Your task to perform on an android device: turn on notifications settings in the gmail app Image 0: 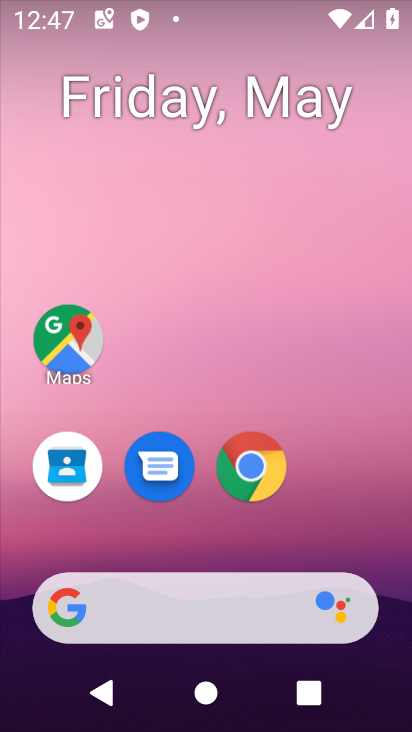
Step 0: click (188, 31)
Your task to perform on an android device: turn on notifications settings in the gmail app Image 1: 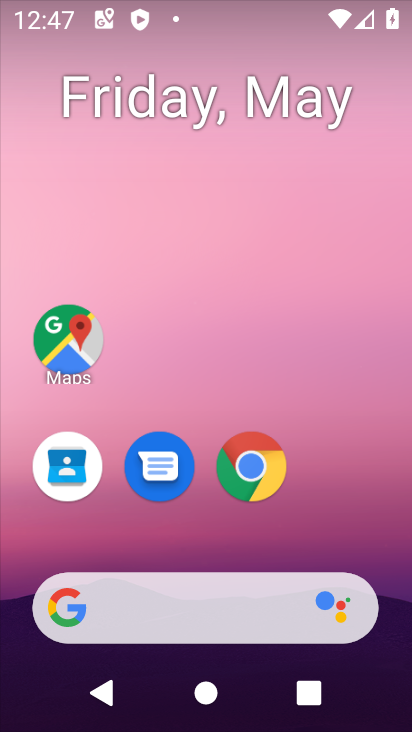
Step 1: drag from (217, 532) to (214, 11)
Your task to perform on an android device: turn on notifications settings in the gmail app Image 2: 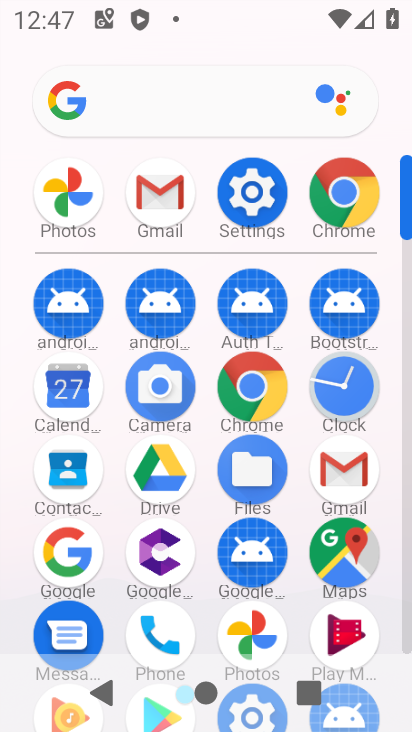
Step 2: click (172, 200)
Your task to perform on an android device: turn on notifications settings in the gmail app Image 3: 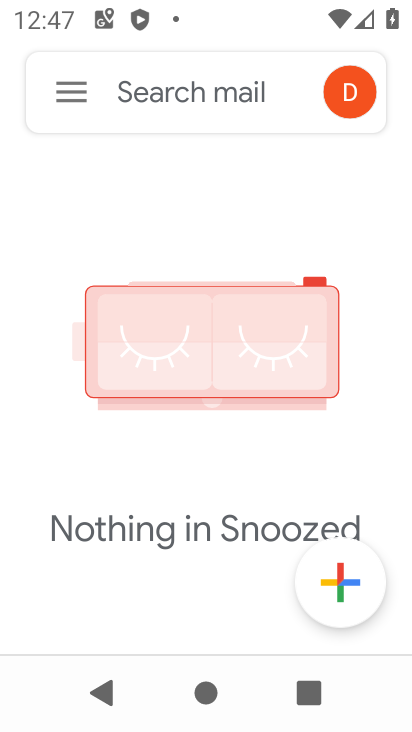
Step 3: click (69, 98)
Your task to perform on an android device: turn on notifications settings in the gmail app Image 4: 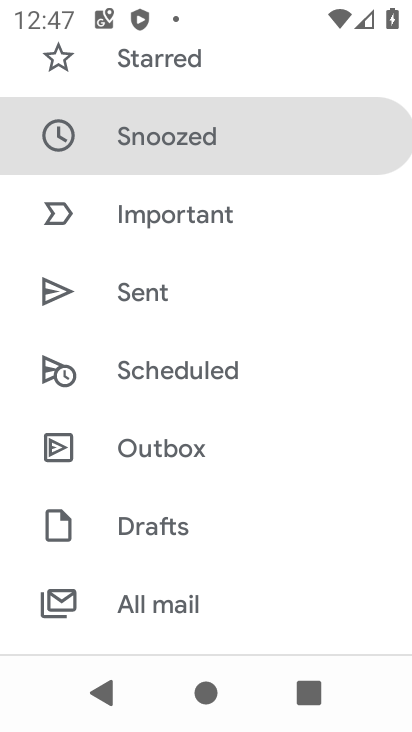
Step 4: drag from (163, 572) to (201, 145)
Your task to perform on an android device: turn on notifications settings in the gmail app Image 5: 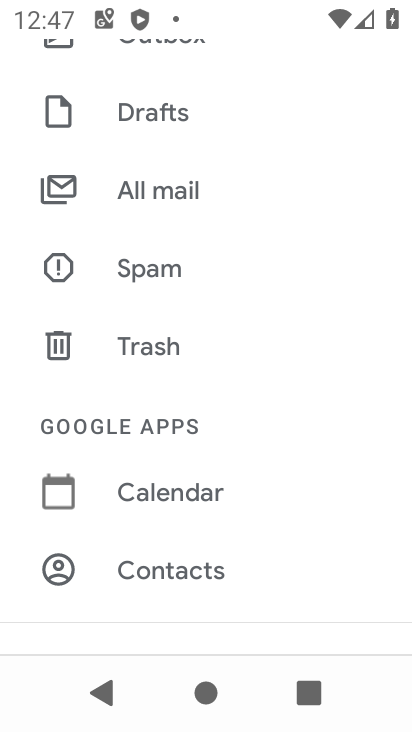
Step 5: drag from (196, 550) to (193, 204)
Your task to perform on an android device: turn on notifications settings in the gmail app Image 6: 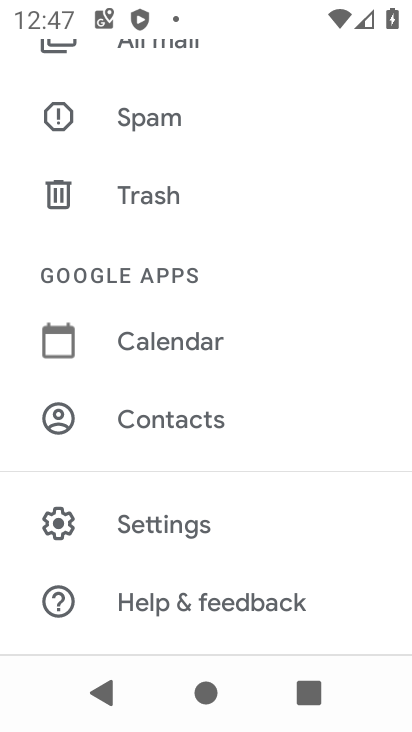
Step 6: click (171, 524)
Your task to perform on an android device: turn on notifications settings in the gmail app Image 7: 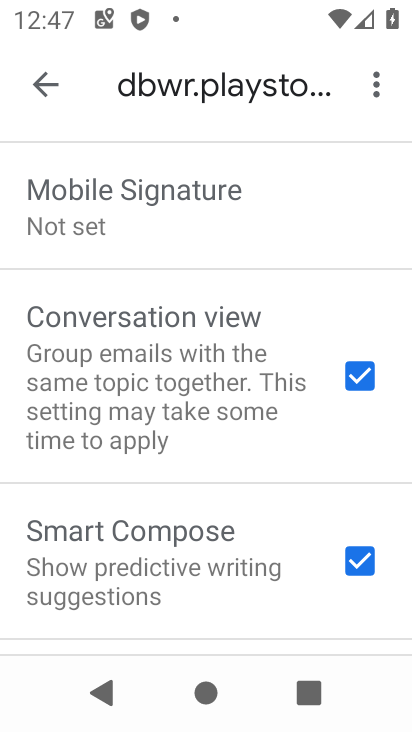
Step 7: drag from (139, 209) to (172, 612)
Your task to perform on an android device: turn on notifications settings in the gmail app Image 8: 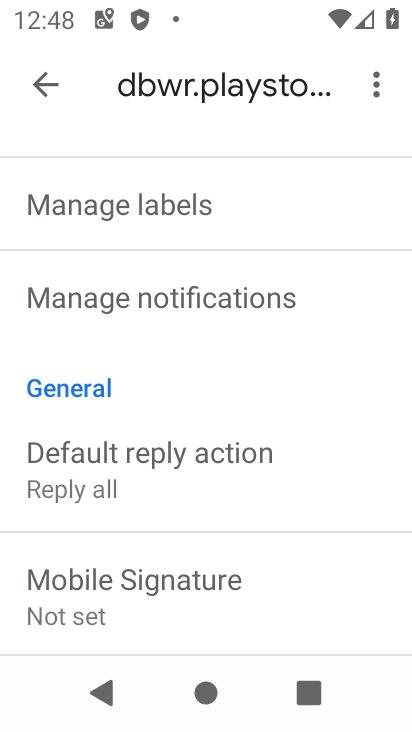
Step 8: drag from (140, 215) to (180, 637)
Your task to perform on an android device: turn on notifications settings in the gmail app Image 9: 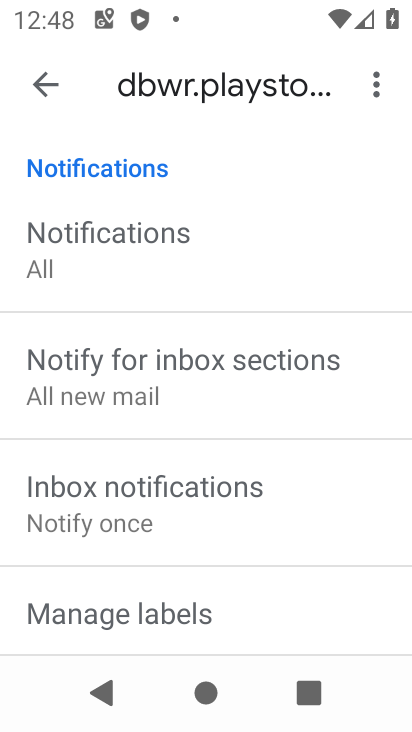
Step 9: drag from (109, 289) to (163, 562)
Your task to perform on an android device: turn on notifications settings in the gmail app Image 10: 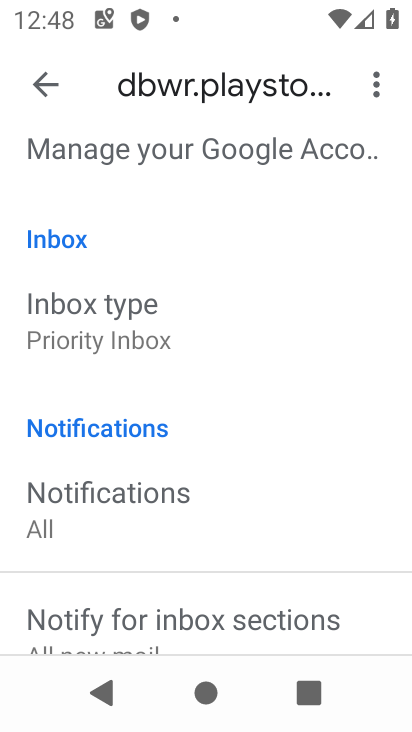
Step 10: drag from (117, 559) to (152, 203)
Your task to perform on an android device: turn on notifications settings in the gmail app Image 11: 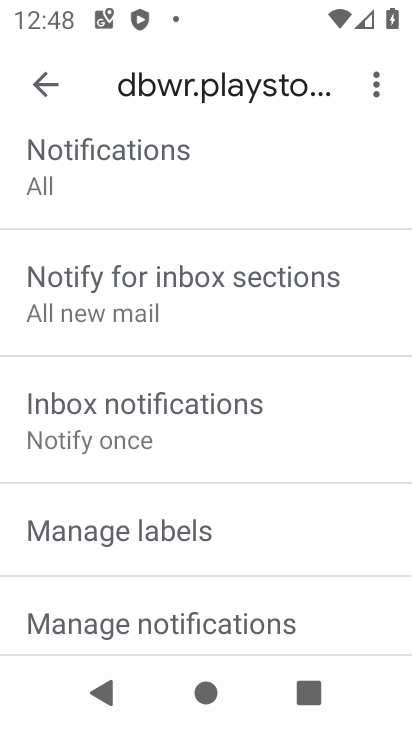
Step 11: drag from (153, 555) to (174, 191)
Your task to perform on an android device: turn on notifications settings in the gmail app Image 12: 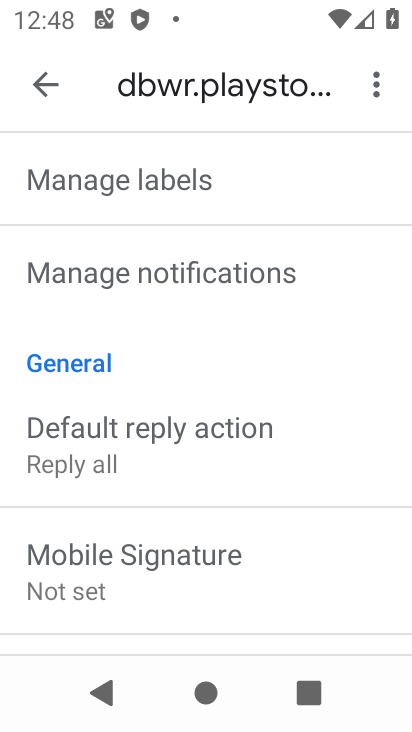
Step 12: drag from (161, 270) to (189, 580)
Your task to perform on an android device: turn on notifications settings in the gmail app Image 13: 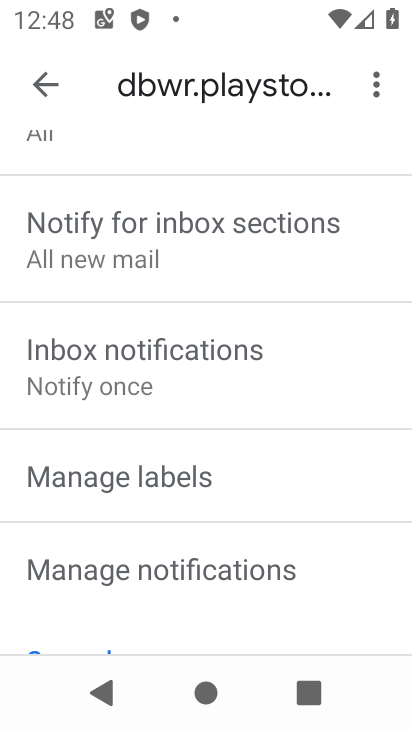
Step 13: drag from (171, 213) to (188, 481)
Your task to perform on an android device: turn on notifications settings in the gmail app Image 14: 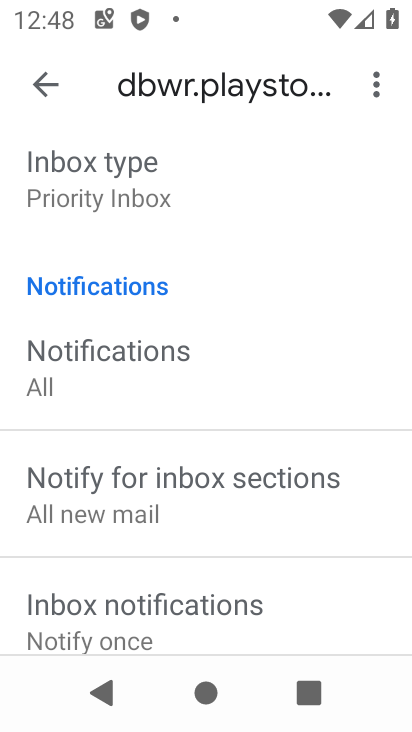
Step 14: click (90, 349)
Your task to perform on an android device: turn on notifications settings in the gmail app Image 15: 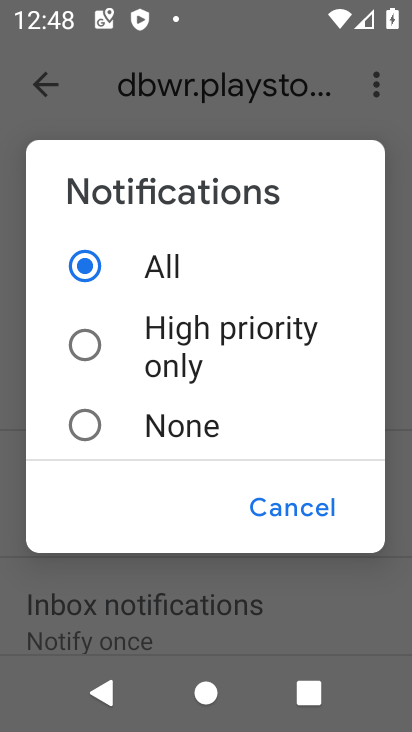
Step 15: task complete